Your task to perform on an android device: delete a single message in the gmail app Image 0: 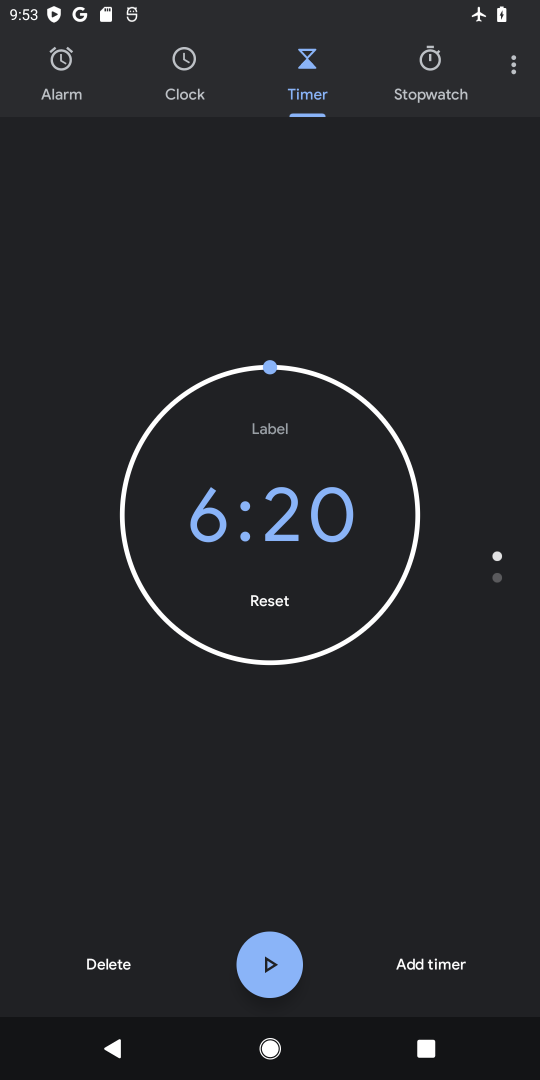
Step 0: press home button
Your task to perform on an android device: delete a single message in the gmail app Image 1: 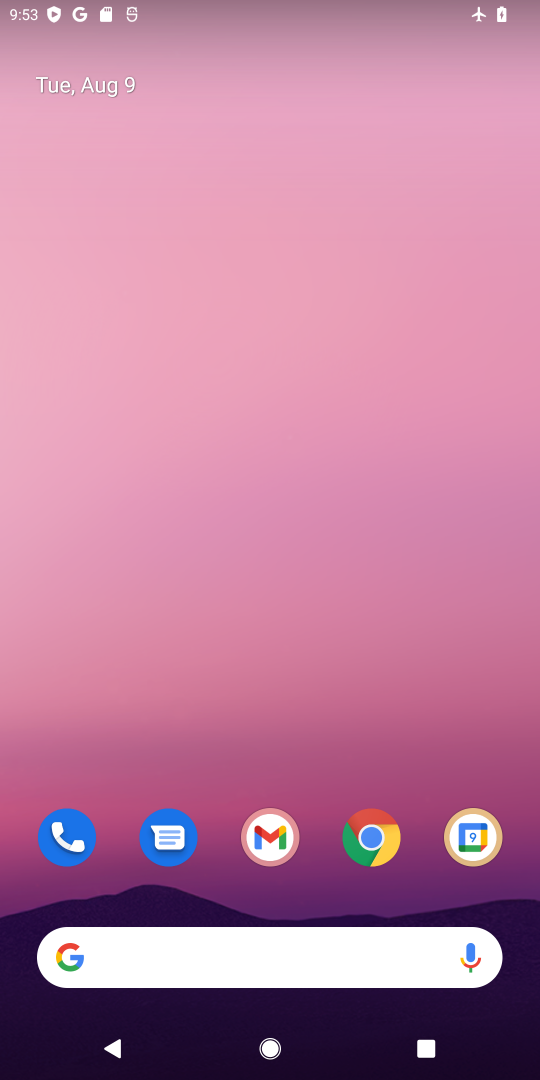
Step 1: drag from (292, 837) to (320, 97)
Your task to perform on an android device: delete a single message in the gmail app Image 2: 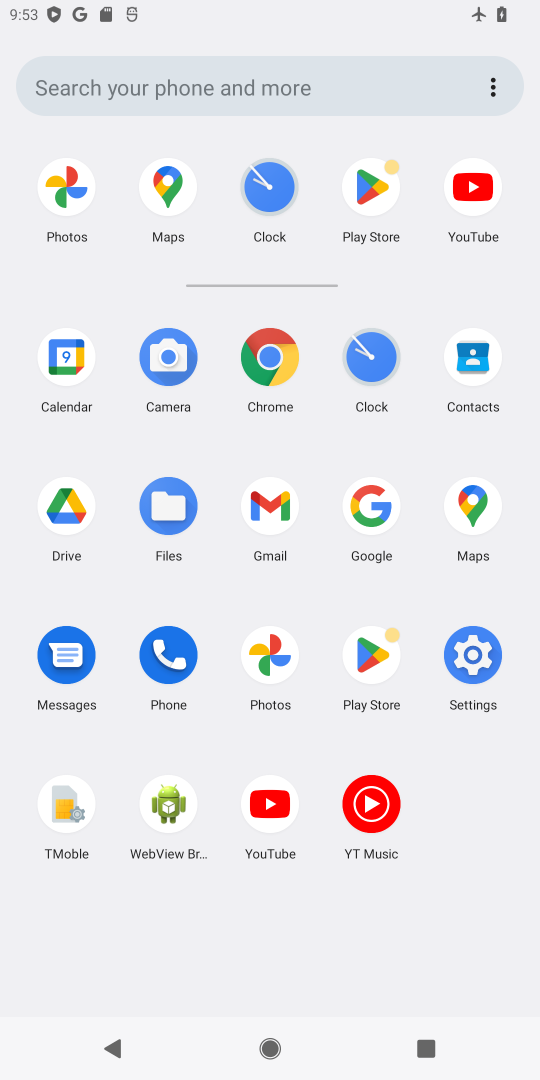
Step 2: click (278, 509)
Your task to perform on an android device: delete a single message in the gmail app Image 3: 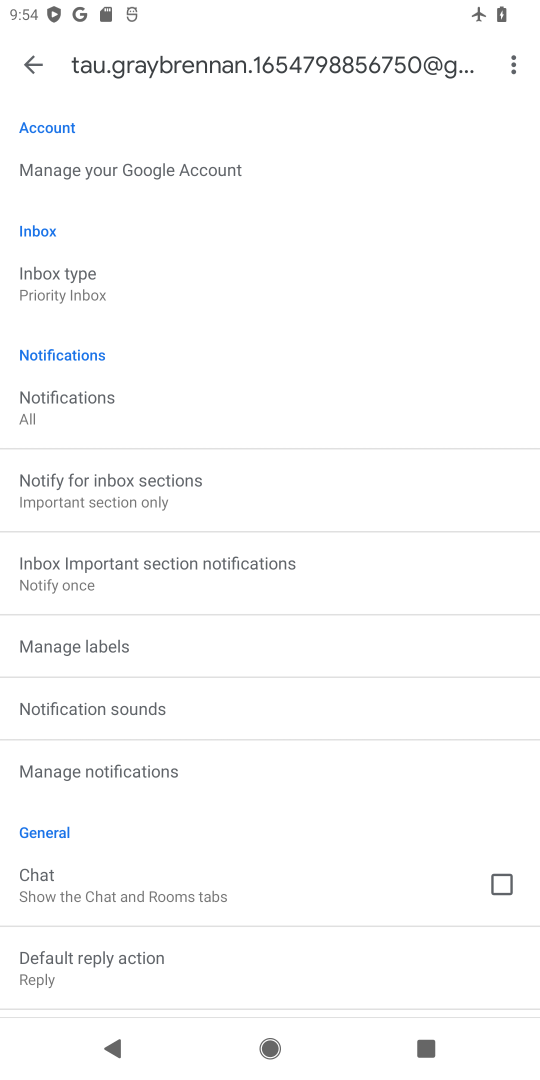
Step 3: click (46, 56)
Your task to perform on an android device: delete a single message in the gmail app Image 4: 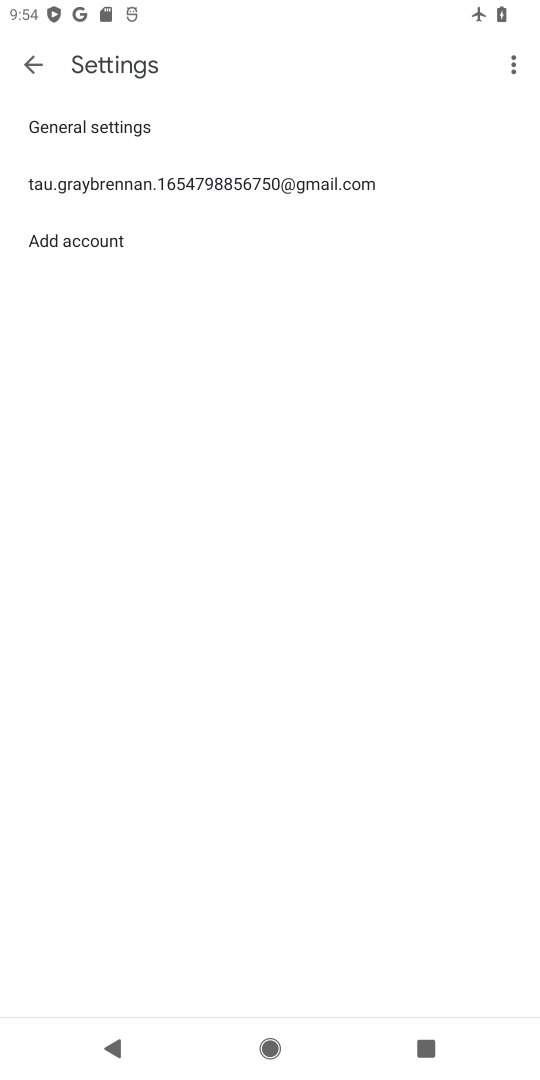
Step 4: click (42, 60)
Your task to perform on an android device: delete a single message in the gmail app Image 5: 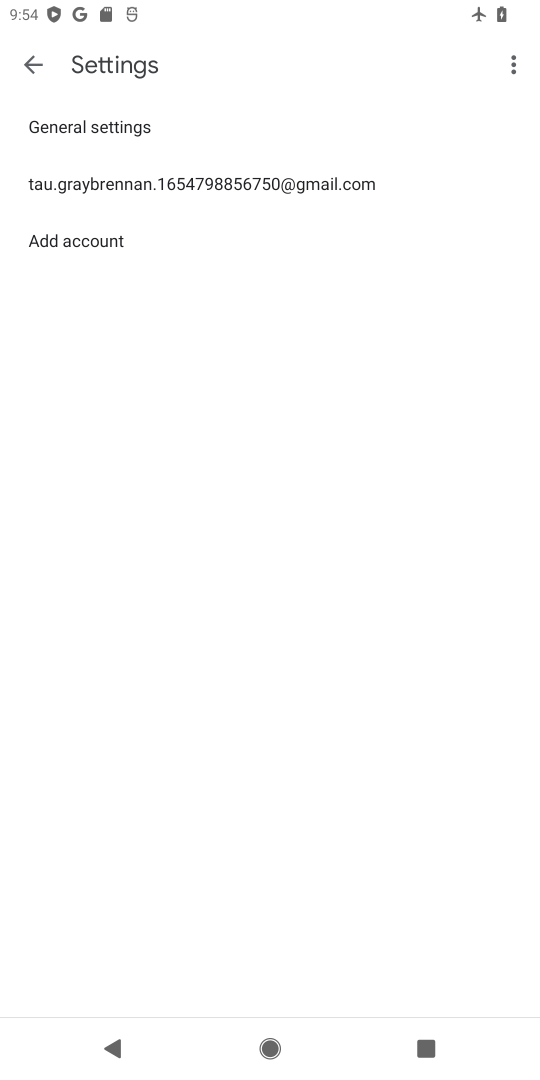
Step 5: click (32, 60)
Your task to perform on an android device: delete a single message in the gmail app Image 6: 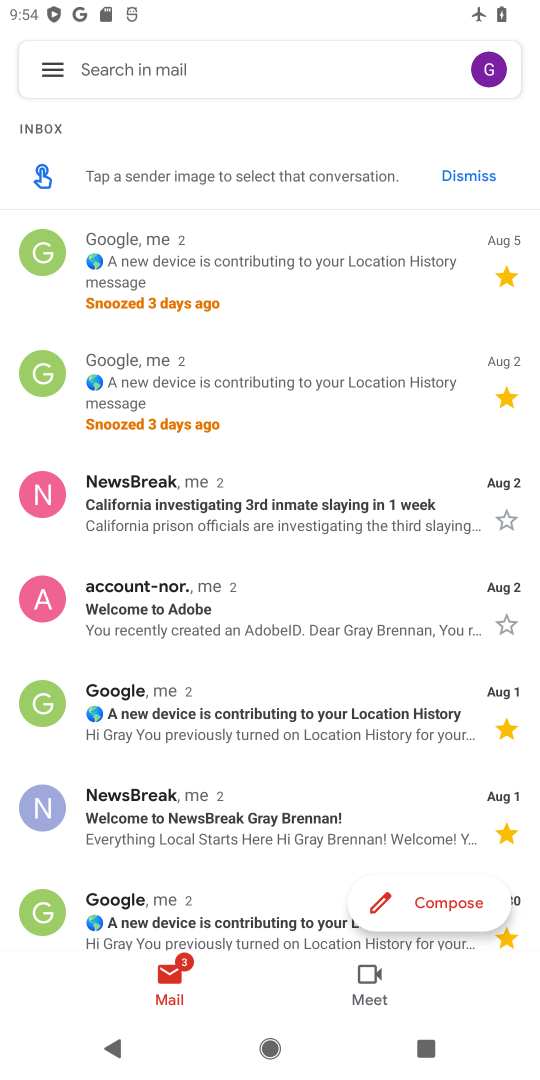
Step 6: click (178, 274)
Your task to perform on an android device: delete a single message in the gmail app Image 7: 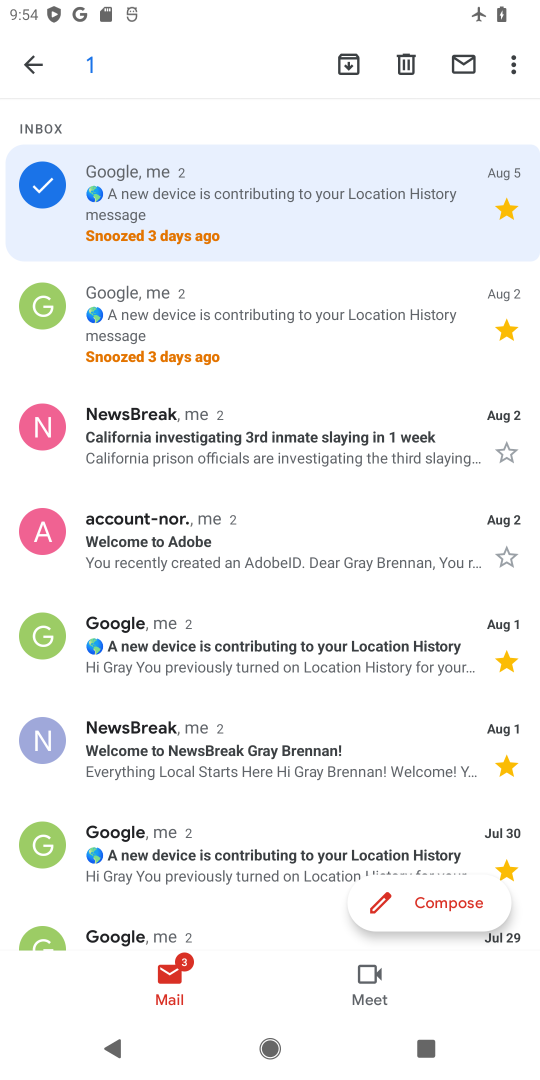
Step 7: click (405, 57)
Your task to perform on an android device: delete a single message in the gmail app Image 8: 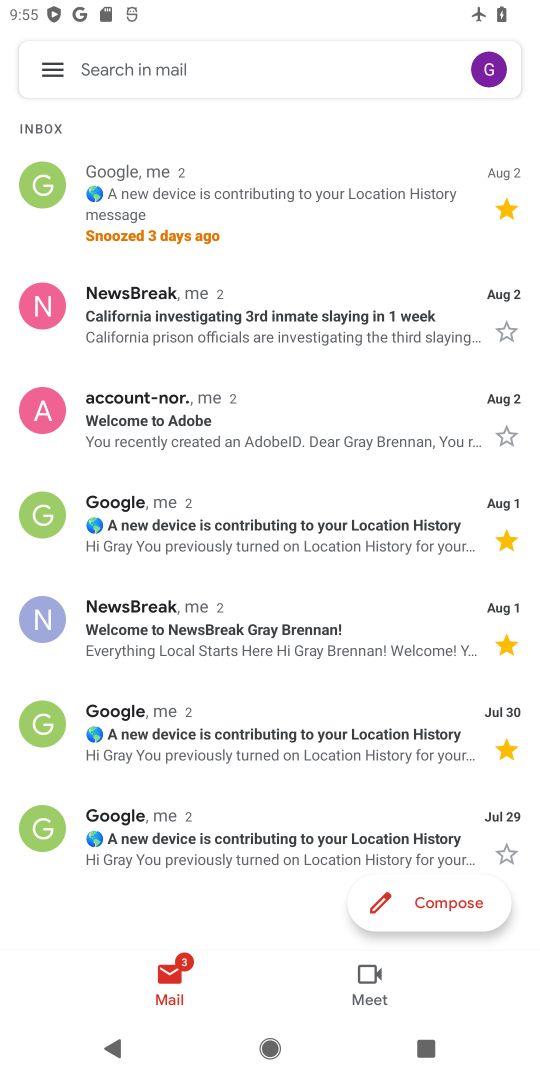
Step 8: task complete